Your task to perform on an android device: toggle wifi Image 0: 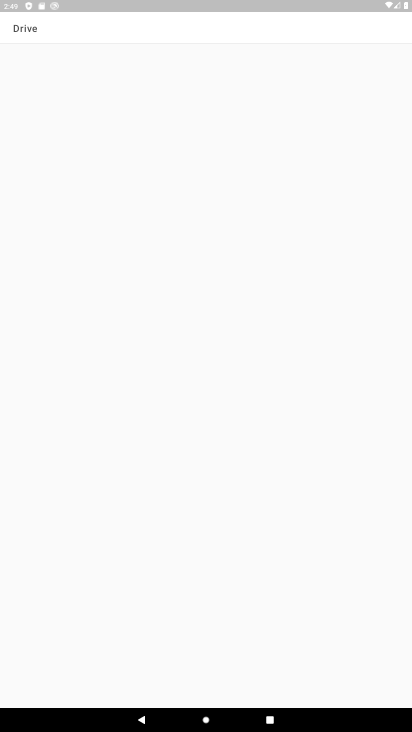
Step 0: press home button
Your task to perform on an android device: toggle wifi Image 1: 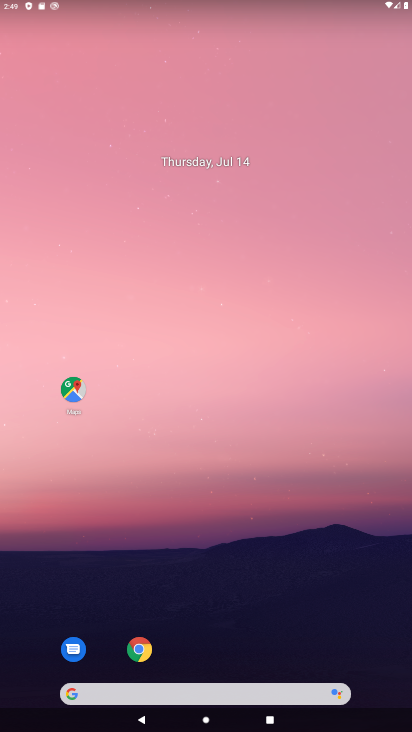
Step 1: drag from (199, 651) to (200, 145)
Your task to perform on an android device: toggle wifi Image 2: 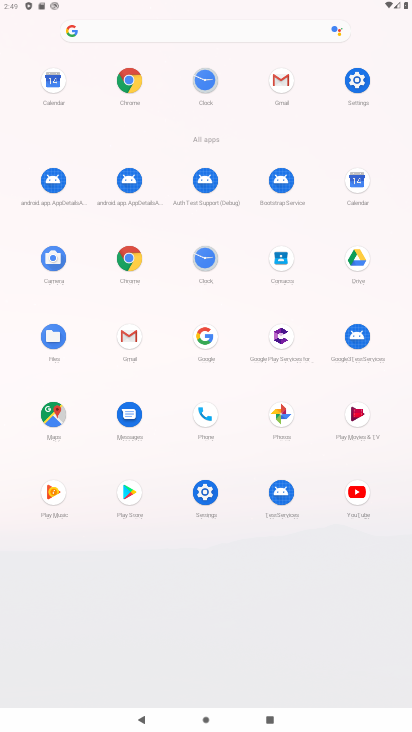
Step 2: click (208, 492)
Your task to perform on an android device: toggle wifi Image 3: 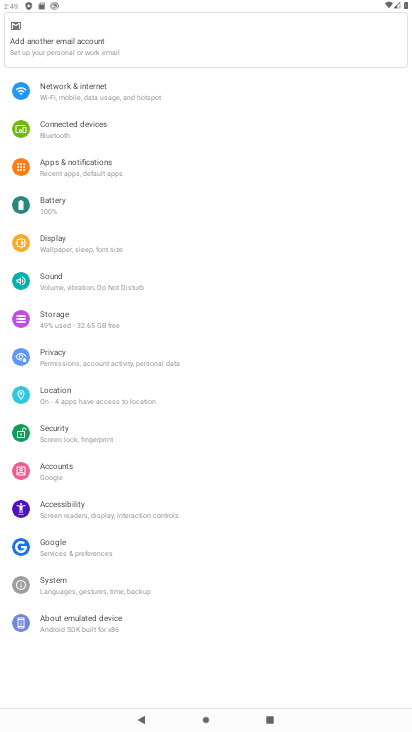
Step 3: drag from (200, 260) to (217, 607)
Your task to perform on an android device: toggle wifi Image 4: 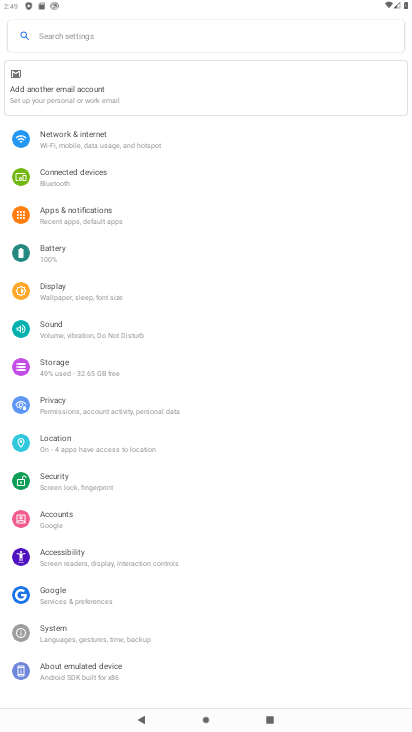
Step 4: click (84, 143)
Your task to perform on an android device: toggle wifi Image 5: 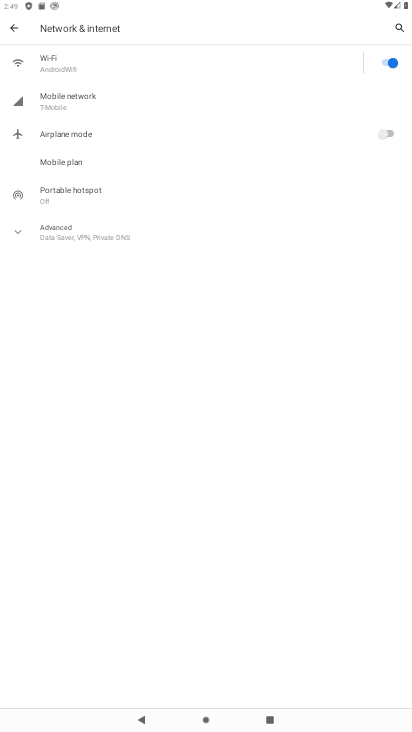
Step 5: click (375, 57)
Your task to perform on an android device: toggle wifi Image 6: 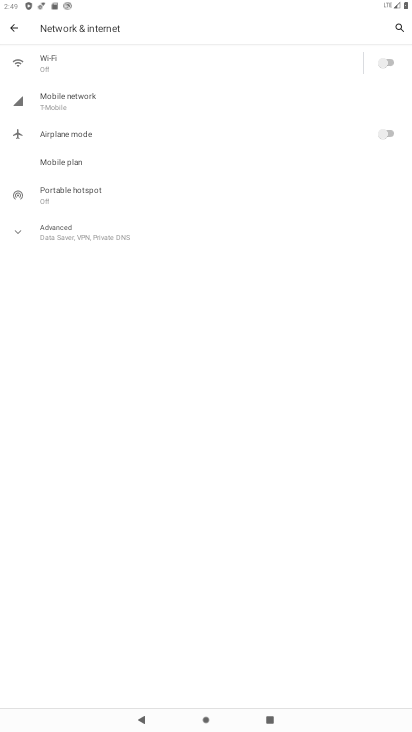
Step 6: task complete